Your task to perform on an android device: turn on javascript in the chrome app Image 0: 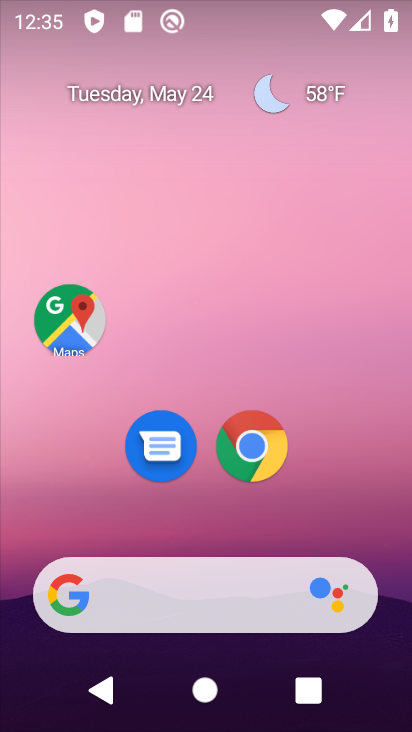
Step 0: drag from (226, 629) to (198, 182)
Your task to perform on an android device: turn on javascript in the chrome app Image 1: 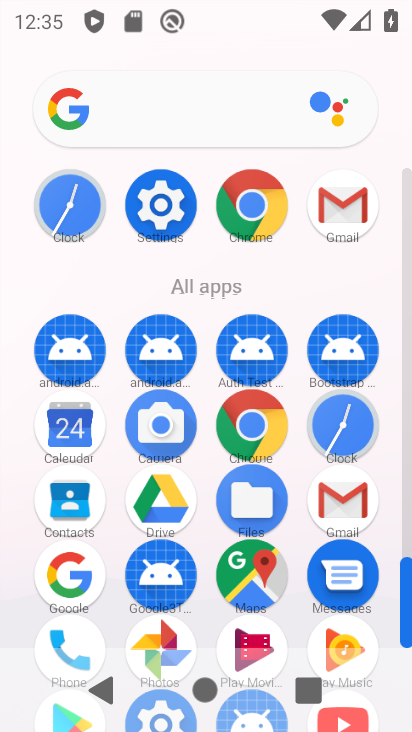
Step 1: click (245, 233)
Your task to perform on an android device: turn on javascript in the chrome app Image 2: 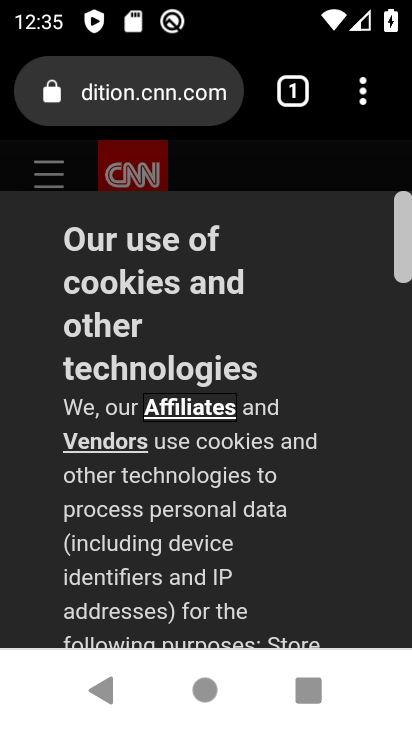
Step 2: click (367, 112)
Your task to perform on an android device: turn on javascript in the chrome app Image 3: 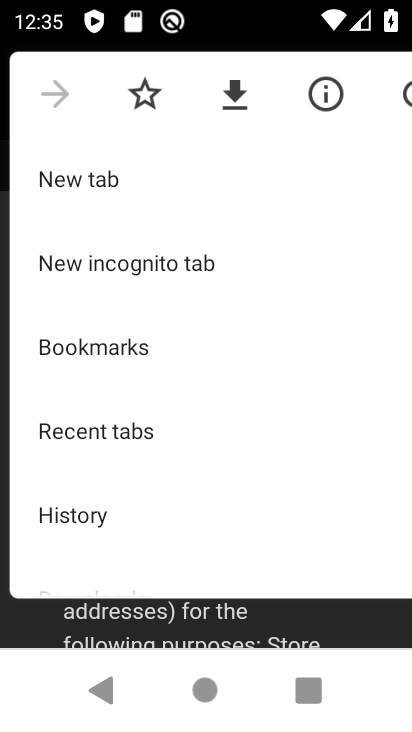
Step 3: drag from (229, 422) to (254, 246)
Your task to perform on an android device: turn on javascript in the chrome app Image 4: 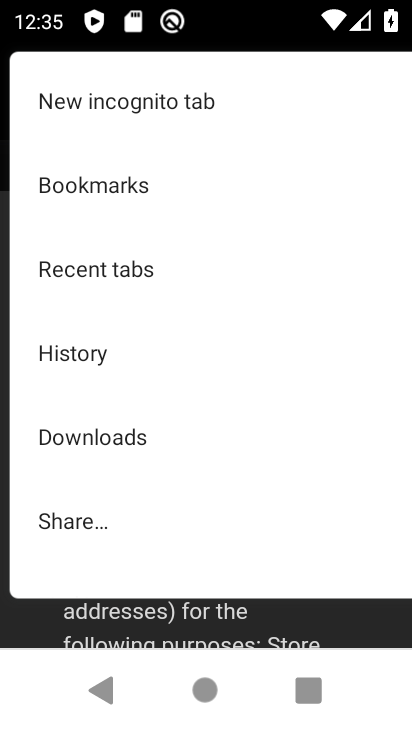
Step 4: drag from (185, 529) to (197, 349)
Your task to perform on an android device: turn on javascript in the chrome app Image 5: 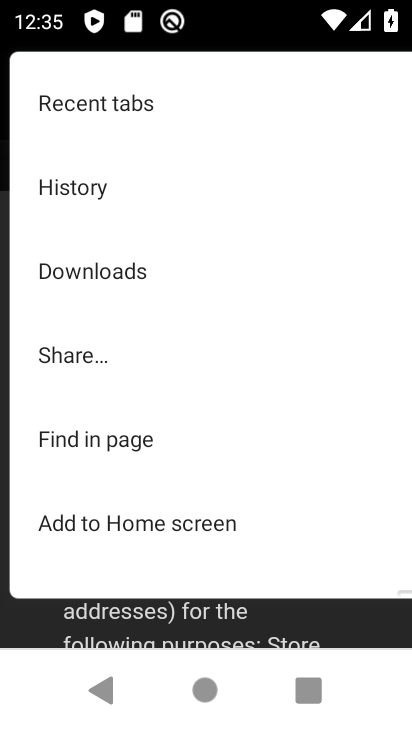
Step 5: drag from (181, 514) to (183, 310)
Your task to perform on an android device: turn on javascript in the chrome app Image 6: 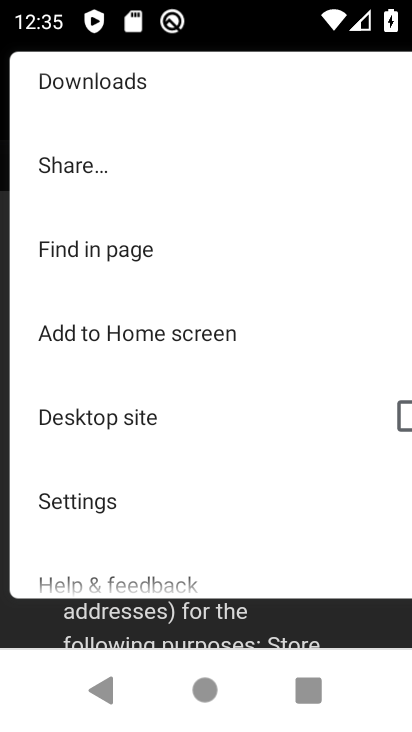
Step 6: click (137, 505)
Your task to perform on an android device: turn on javascript in the chrome app Image 7: 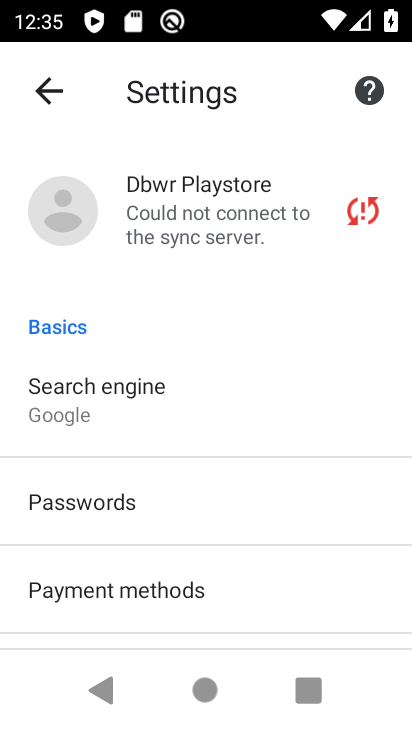
Step 7: drag from (141, 546) to (128, 265)
Your task to perform on an android device: turn on javascript in the chrome app Image 8: 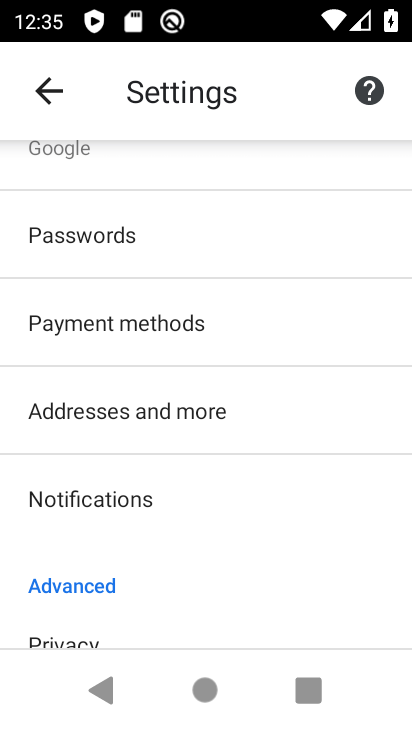
Step 8: drag from (179, 547) to (186, 237)
Your task to perform on an android device: turn on javascript in the chrome app Image 9: 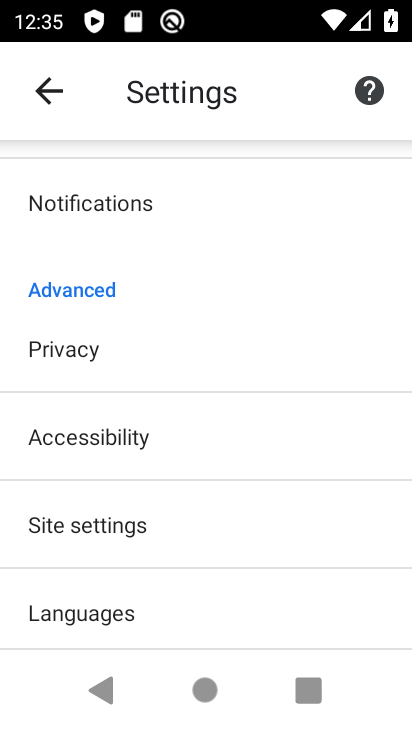
Step 9: drag from (159, 559) to (179, 241)
Your task to perform on an android device: turn on javascript in the chrome app Image 10: 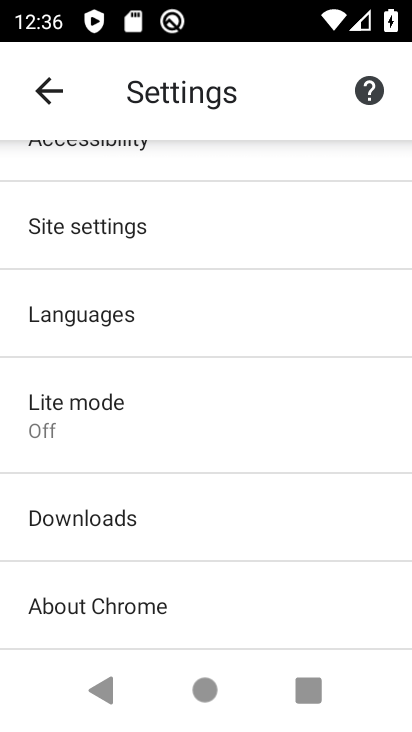
Step 10: drag from (132, 503) to (163, 134)
Your task to perform on an android device: turn on javascript in the chrome app Image 11: 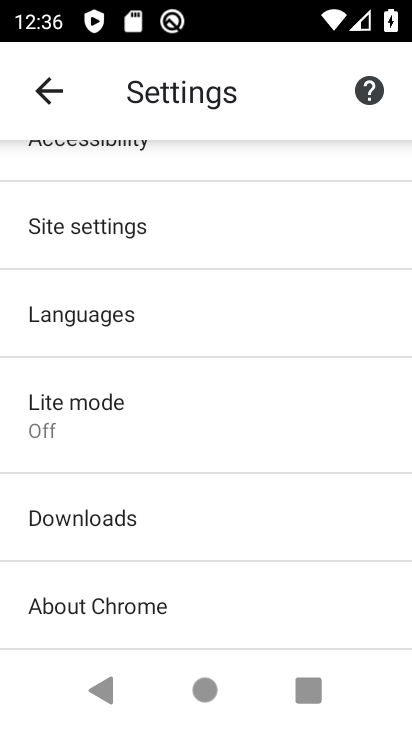
Step 11: drag from (123, 531) to (130, 402)
Your task to perform on an android device: turn on javascript in the chrome app Image 12: 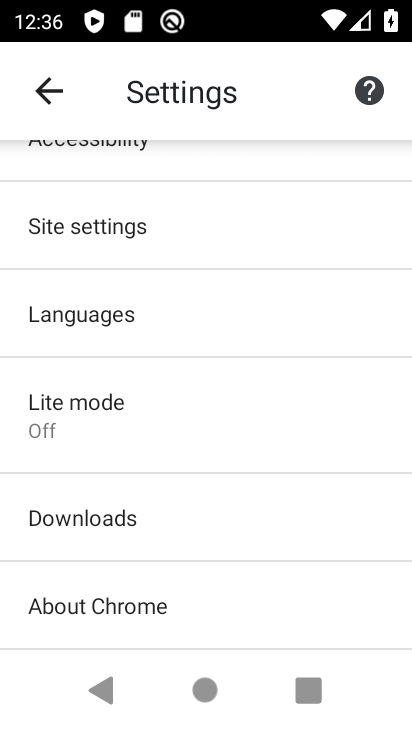
Step 12: drag from (137, 419) to (157, 610)
Your task to perform on an android device: turn on javascript in the chrome app Image 13: 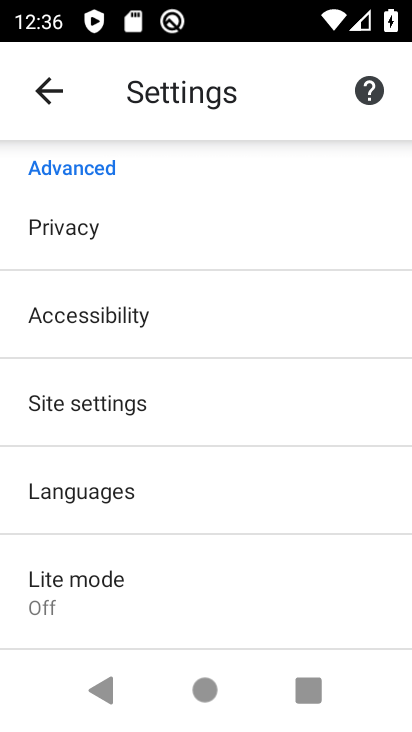
Step 13: click (133, 427)
Your task to perform on an android device: turn on javascript in the chrome app Image 14: 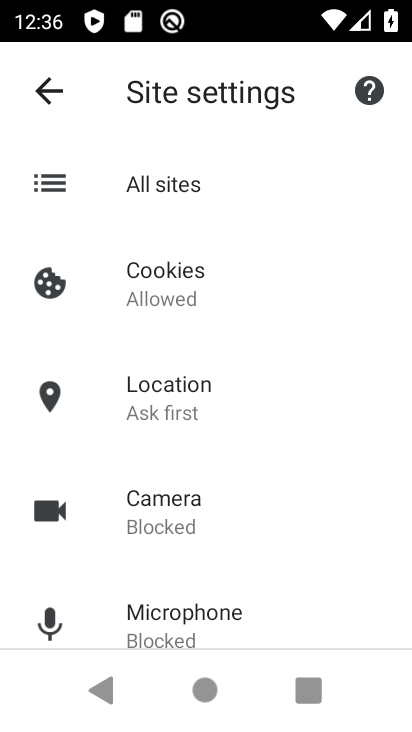
Step 14: drag from (128, 581) to (128, 267)
Your task to perform on an android device: turn on javascript in the chrome app Image 15: 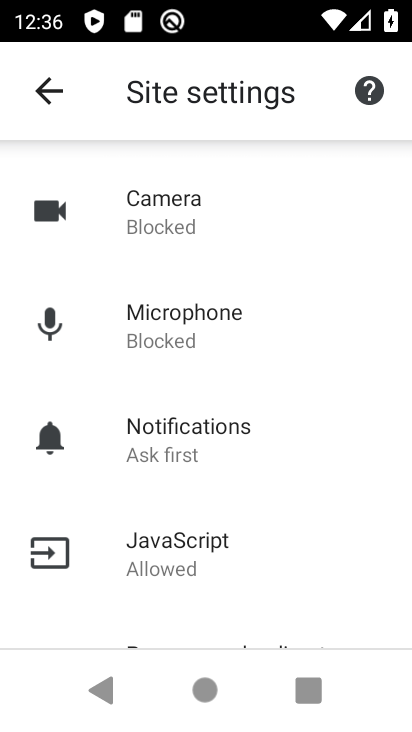
Step 15: click (185, 548)
Your task to perform on an android device: turn on javascript in the chrome app Image 16: 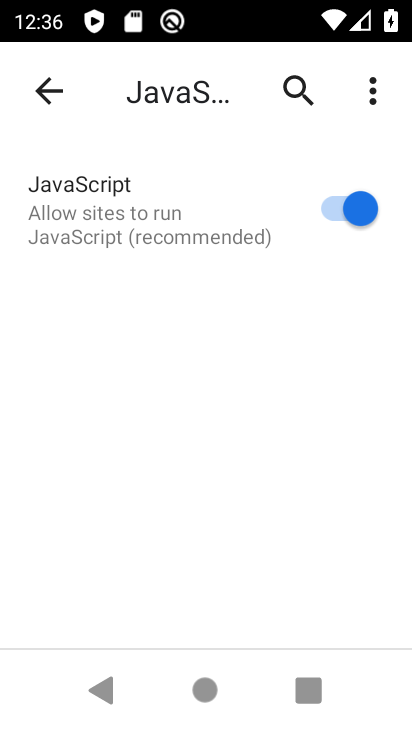
Step 16: task complete